Your task to perform on an android device: turn off data saver in the chrome app Image 0: 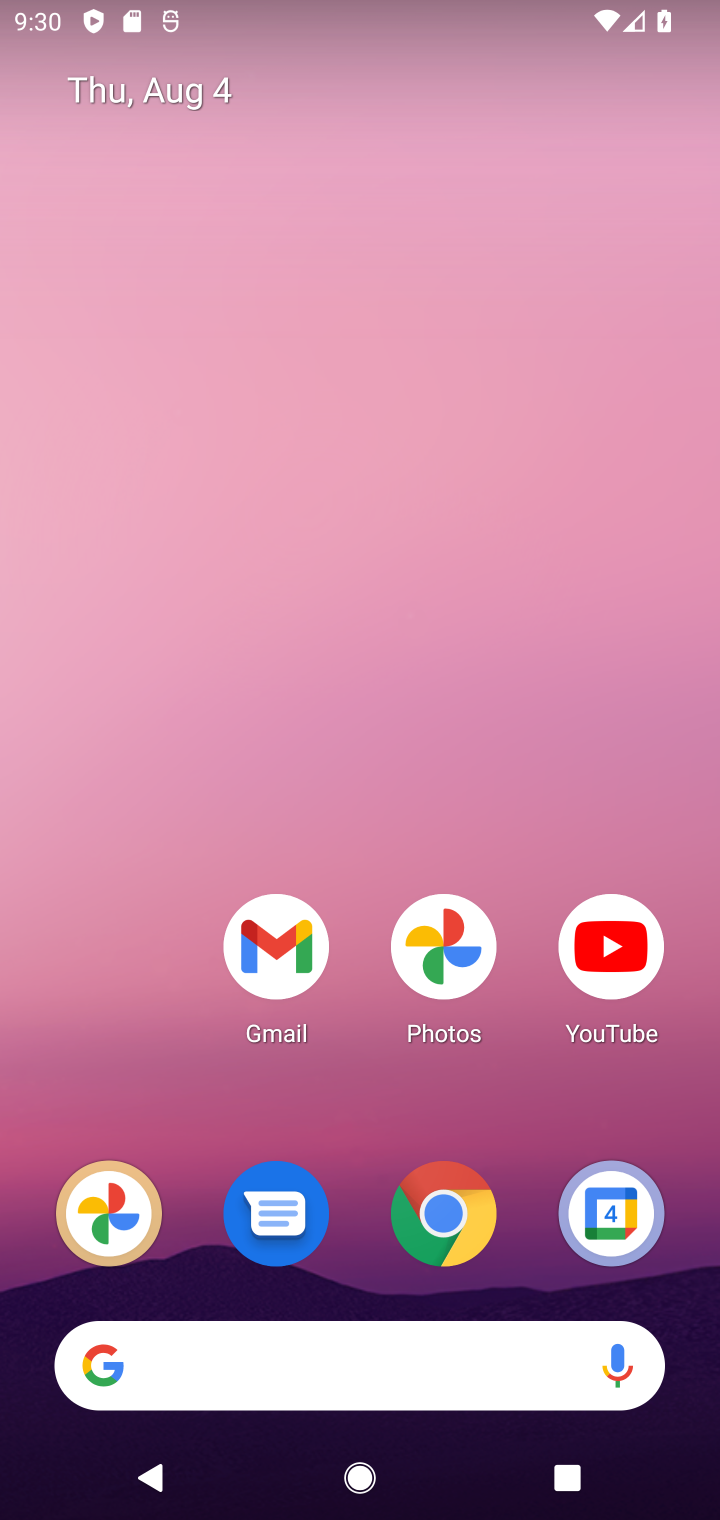
Step 0: press home button
Your task to perform on an android device: turn off data saver in the chrome app Image 1: 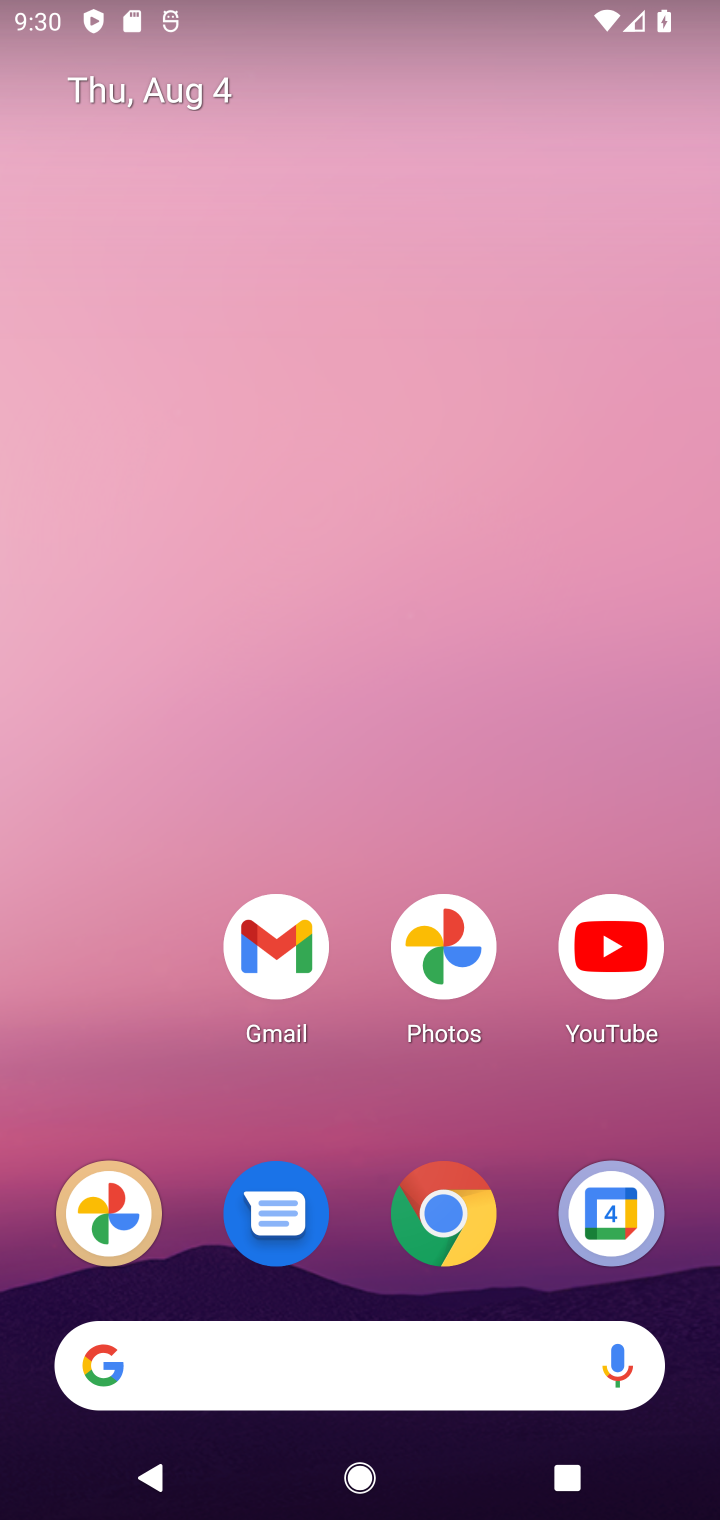
Step 1: drag from (372, 1129) to (360, 2)
Your task to perform on an android device: turn off data saver in the chrome app Image 2: 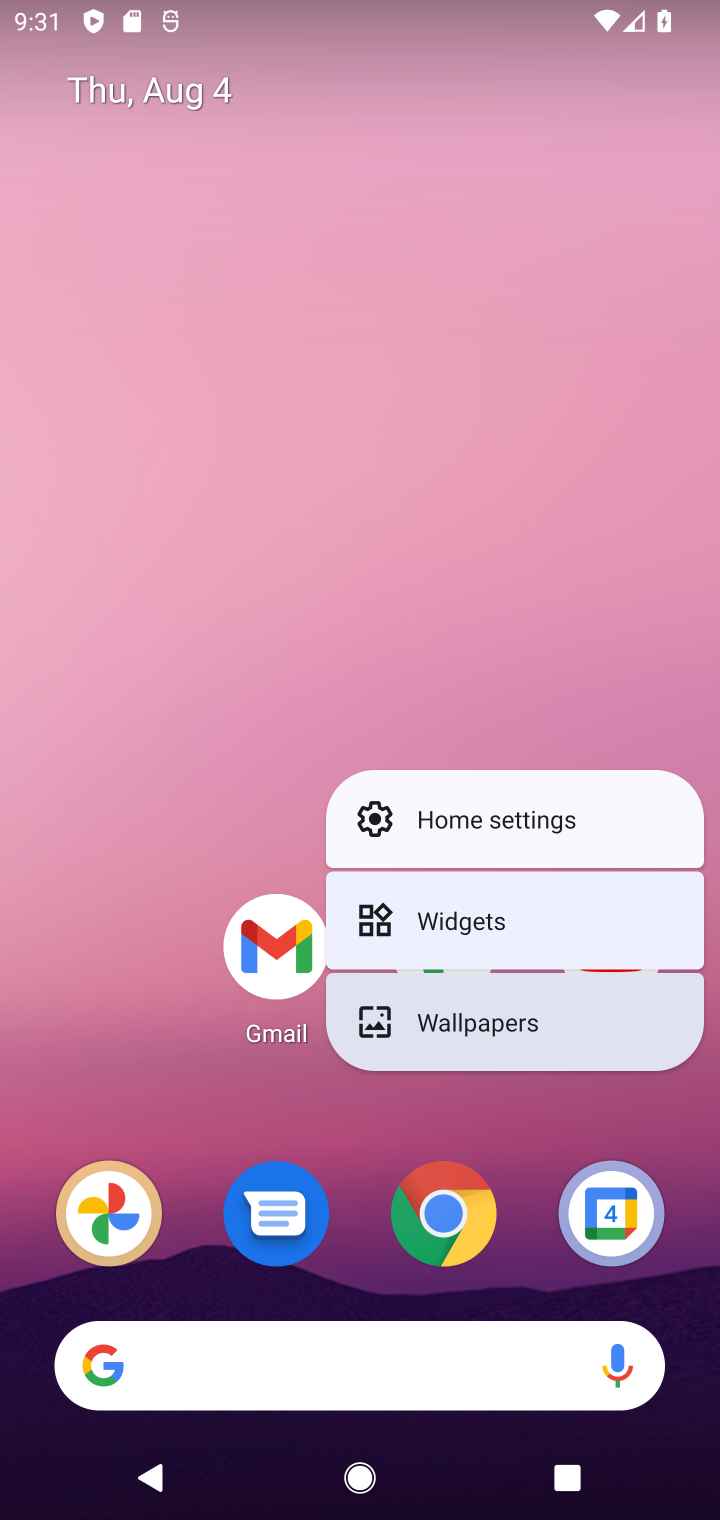
Step 2: click (150, 611)
Your task to perform on an android device: turn off data saver in the chrome app Image 3: 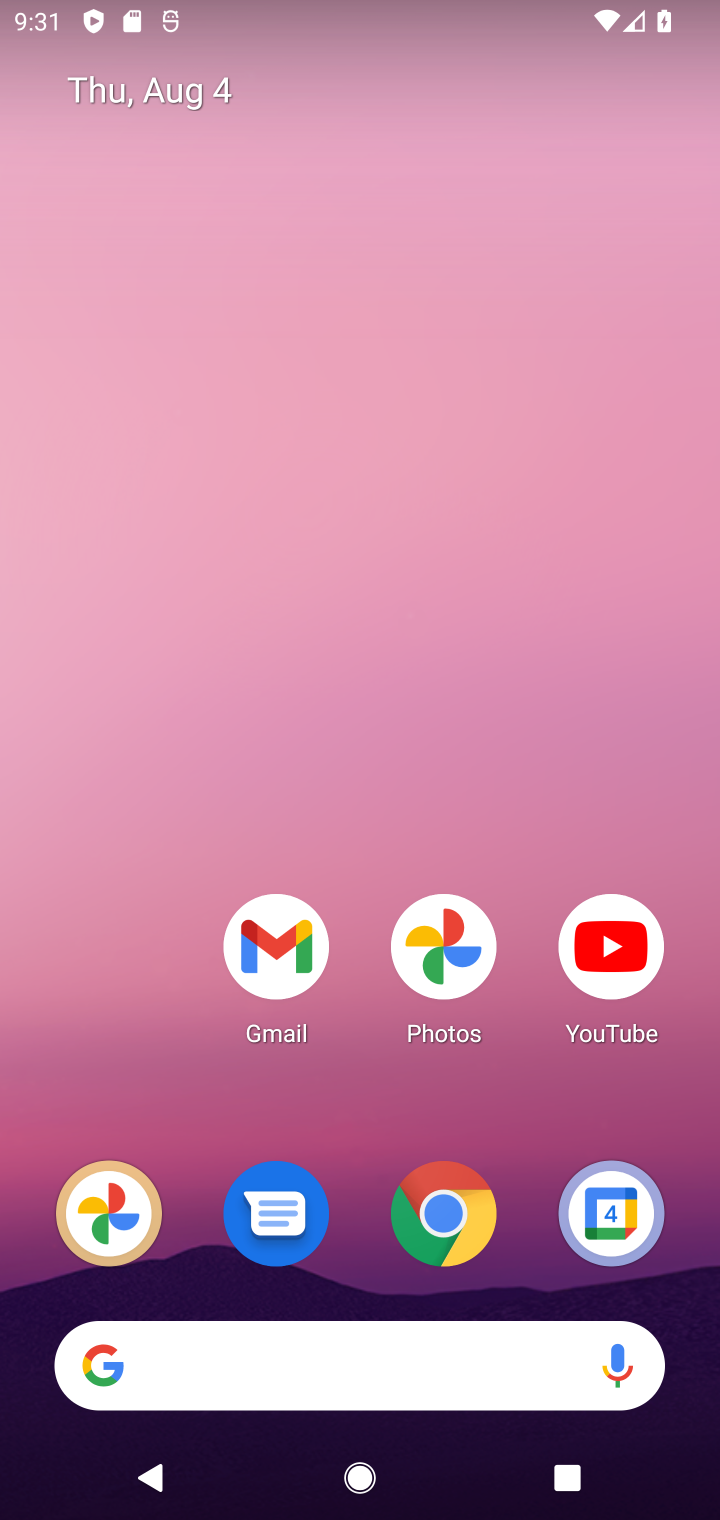
Step 3: drag from (351, 1092) to (386, 30)
Your task to perform on an android device: turn off data saver in the chrome app Image 4: 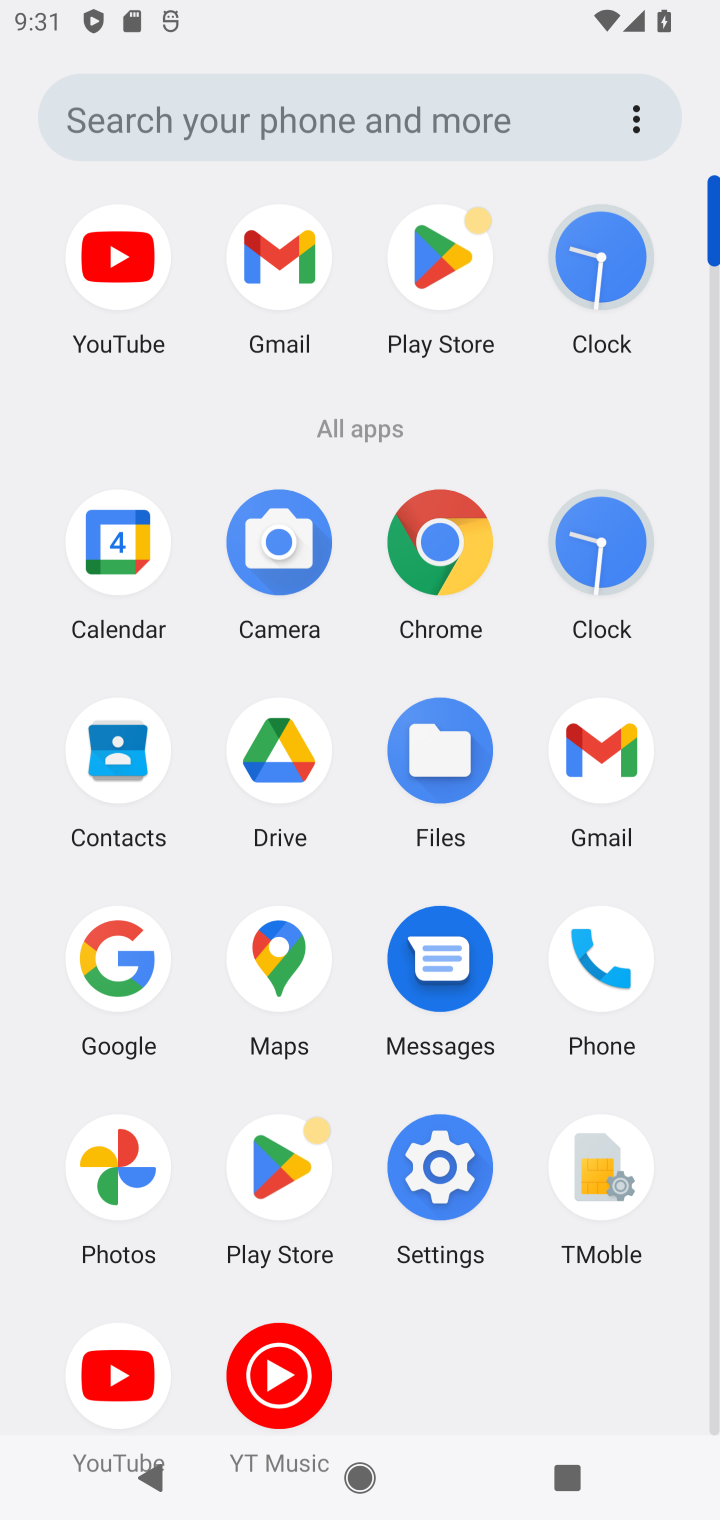
Step 4: click (438, 536)
Your task to perform on an android device: turn off data saver in the chrome app Image 5: 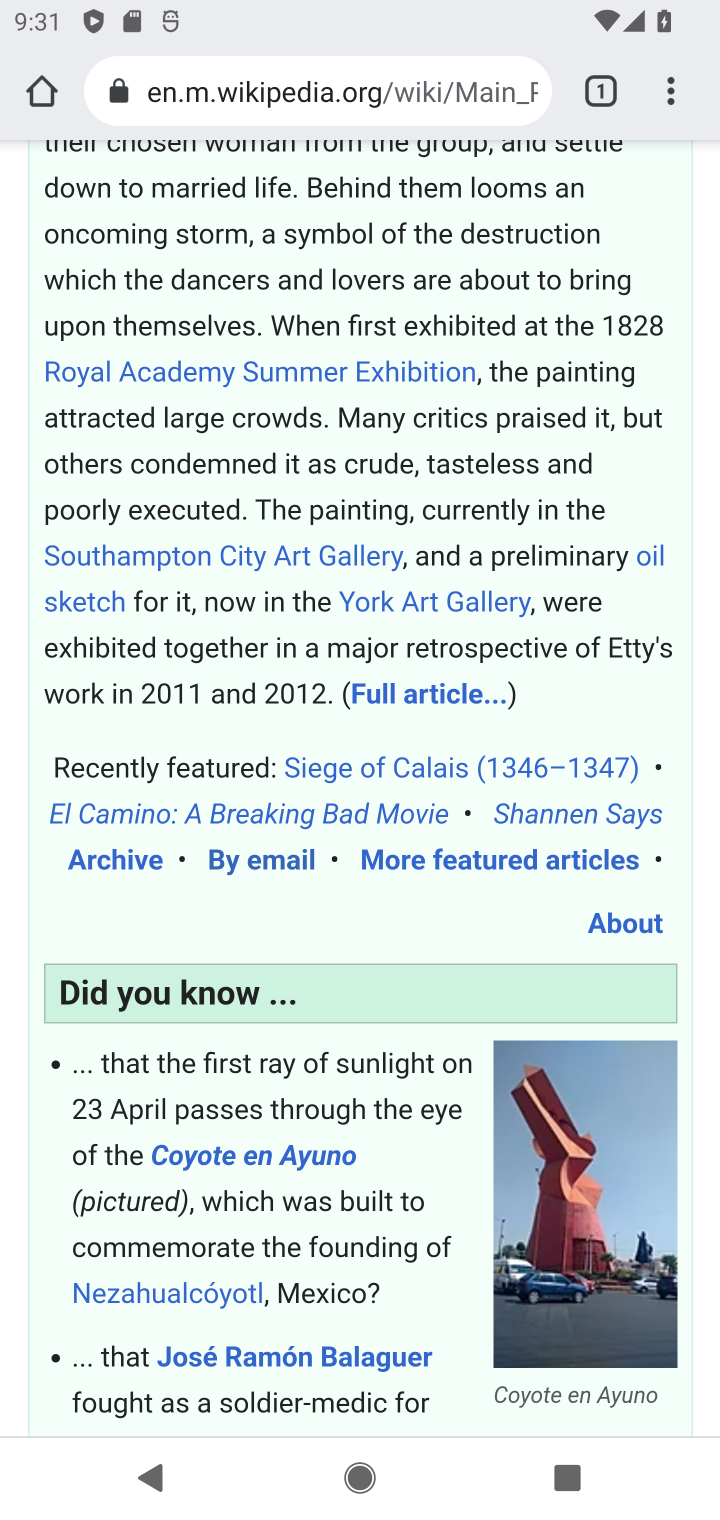
Step 5: click (674, 83)
Your task to perform on an android device: turn off data saver in the chrome app Image 6: 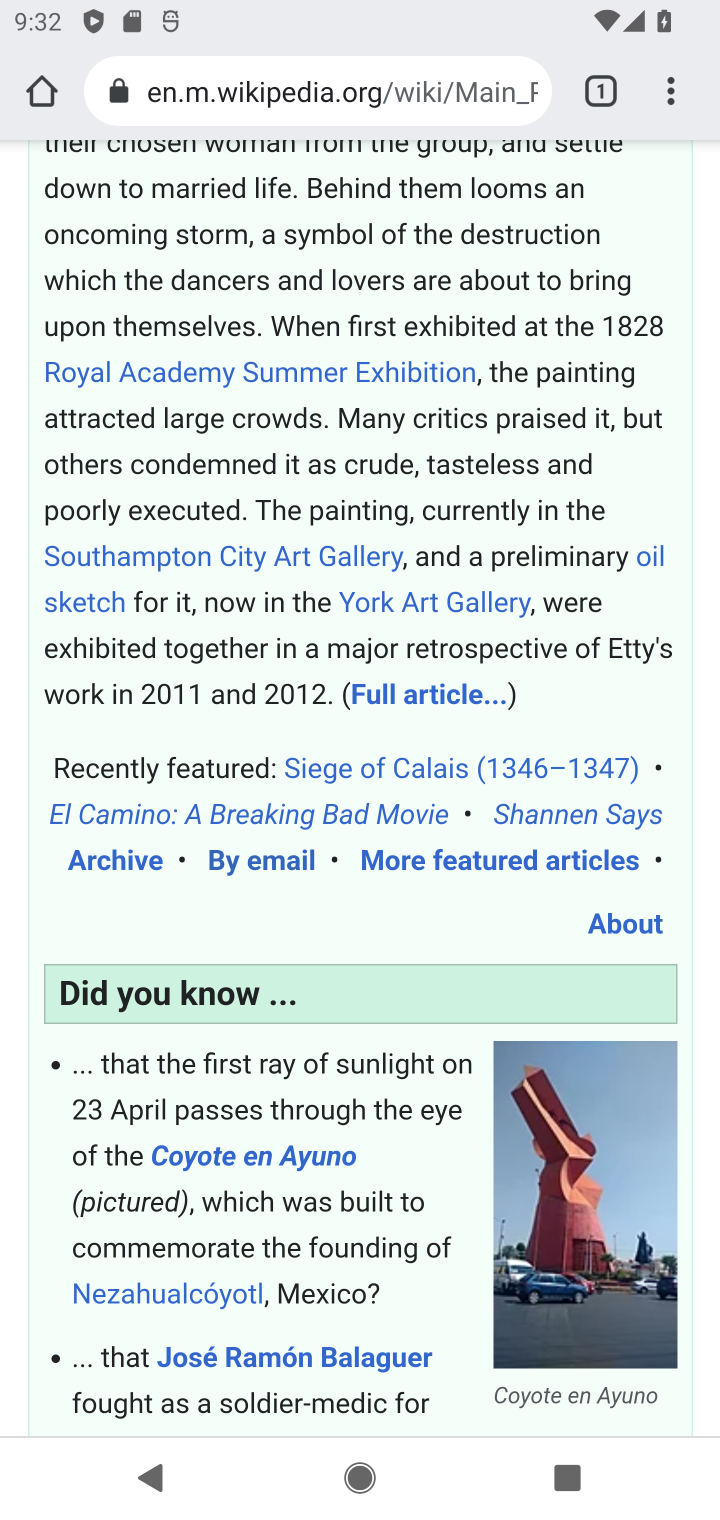
Step 6: click (669, 84)
Your task to perform on an android device: turn off data saver in the chrome app Image 7: 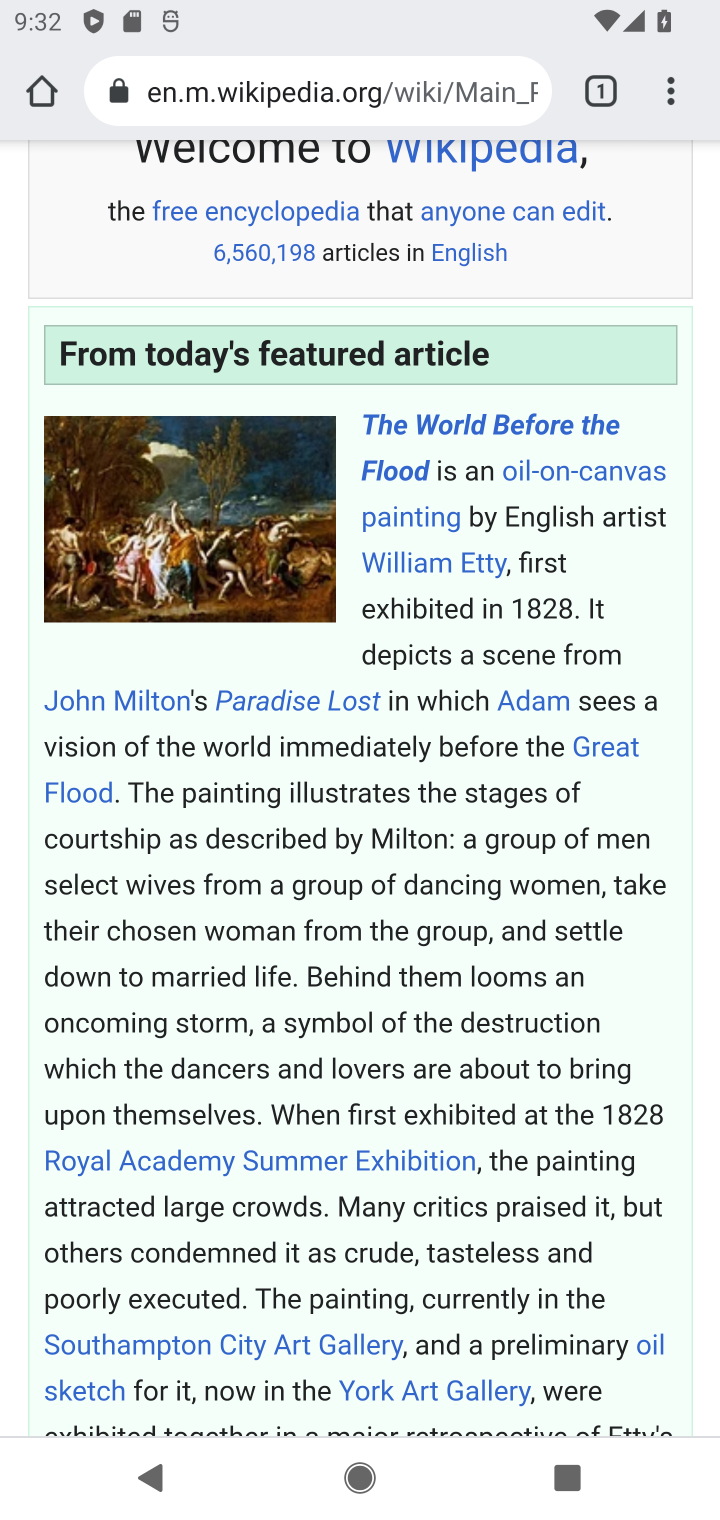
Step 7: click (674, 91)
Your task to perform on an android device: turn off data saver in the chrome app Image 8: 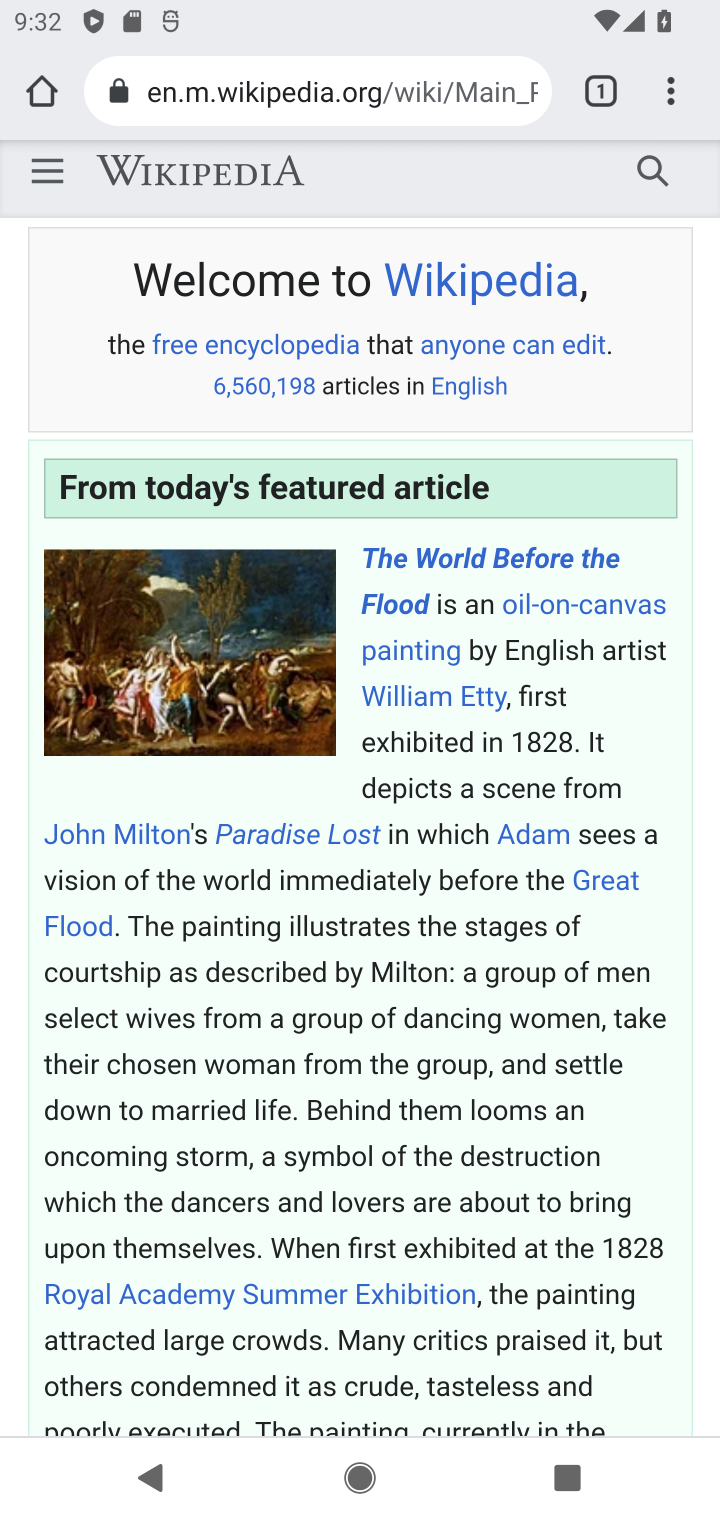
Step 8: click (670, 90)
Your task to perform on an android device: turn off data saver in the chrome app Image 9: 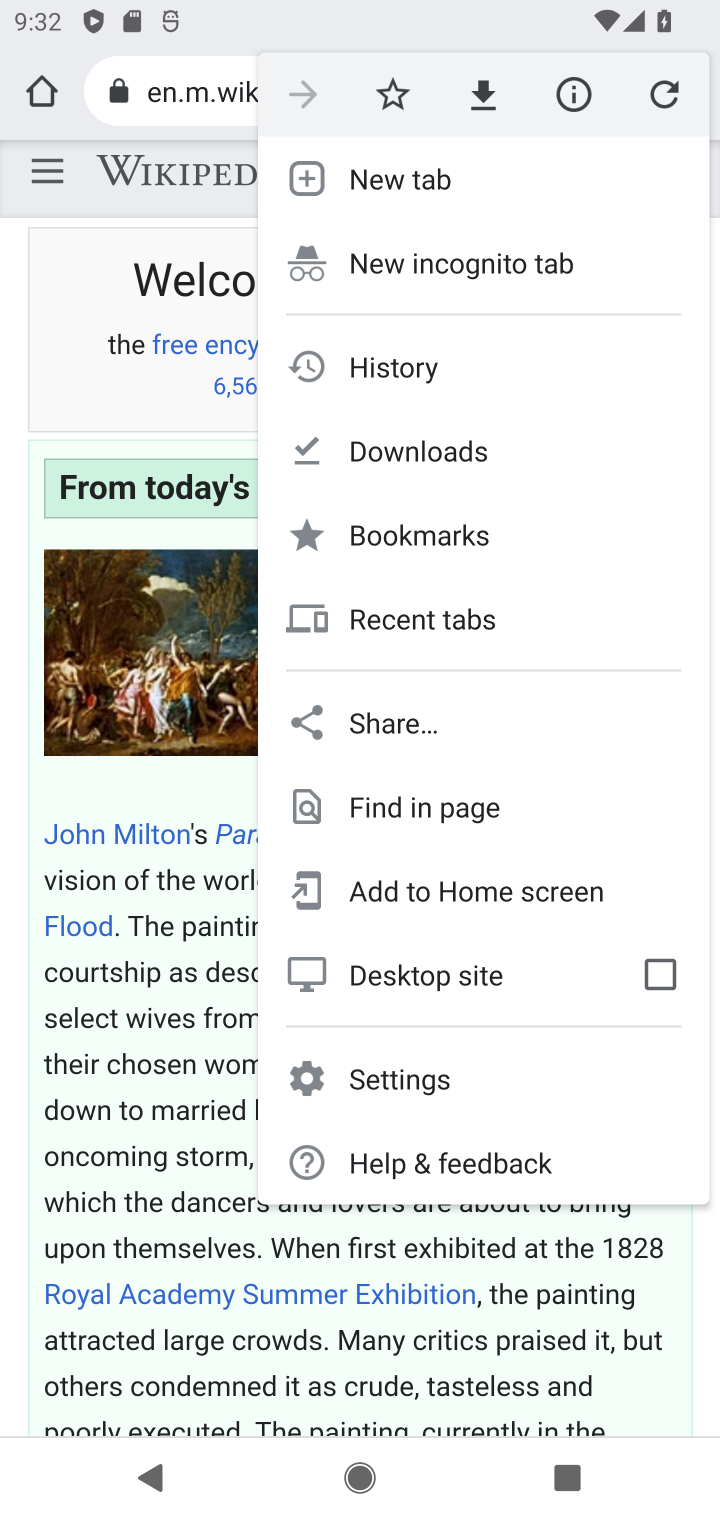
Step 9: click (384, 1069)
Your task to perform on an android device: turn off data saver in the chrome app Image 10: 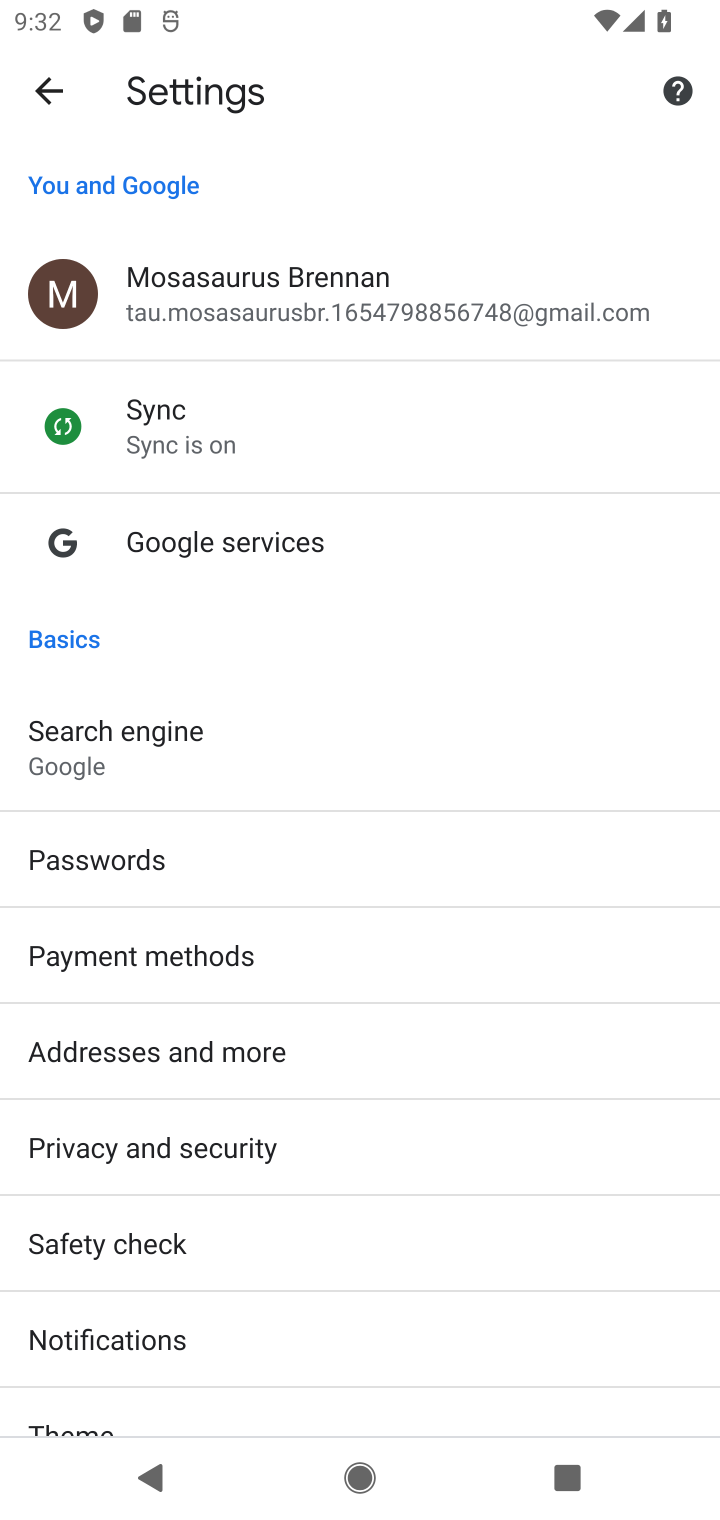
Step 10: drag from (291, 1325) to (242, 318)
Your task to perform on an android device: turn off data saver in the chrome app Image 11: 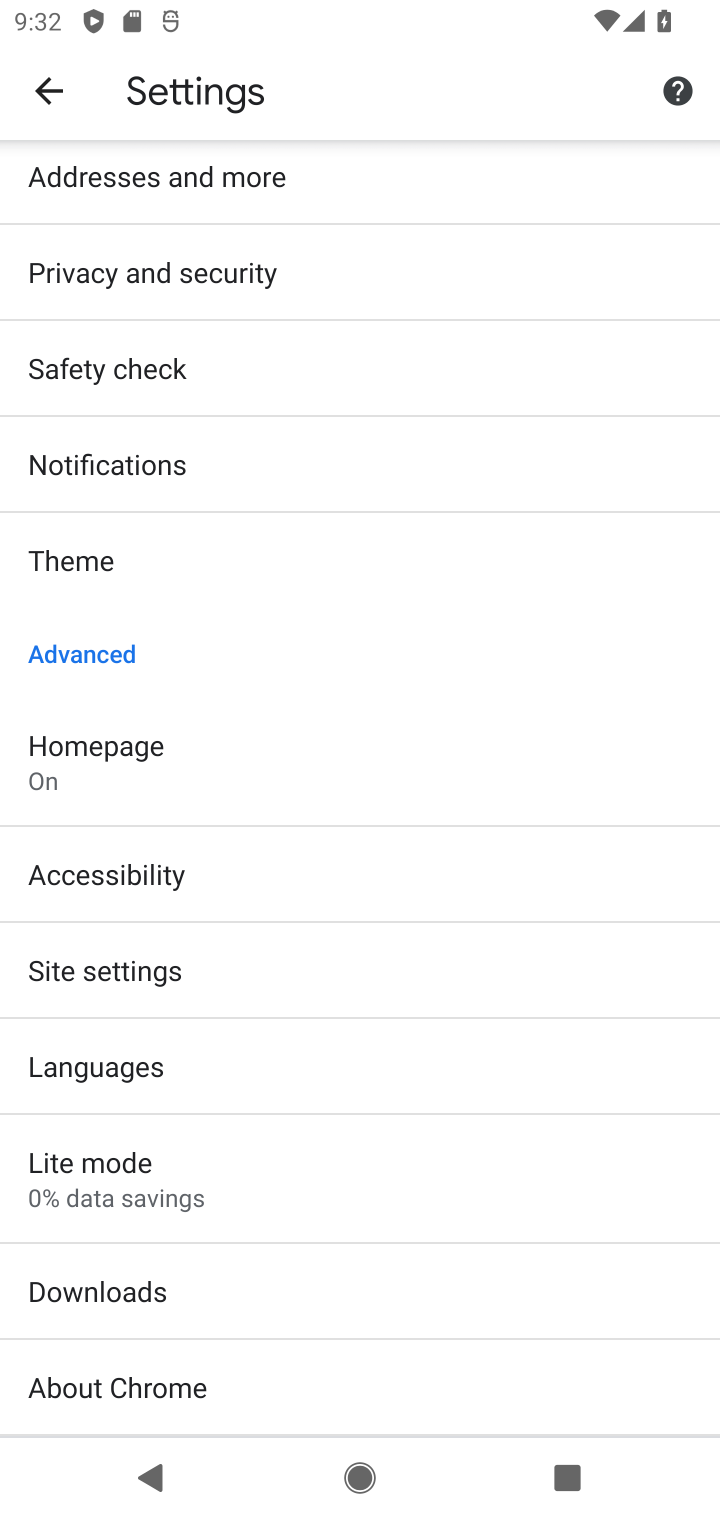
Step 11: click (201, 1170)
Your task to perform on an android device: turn off data saver in the chrome app Image 12: 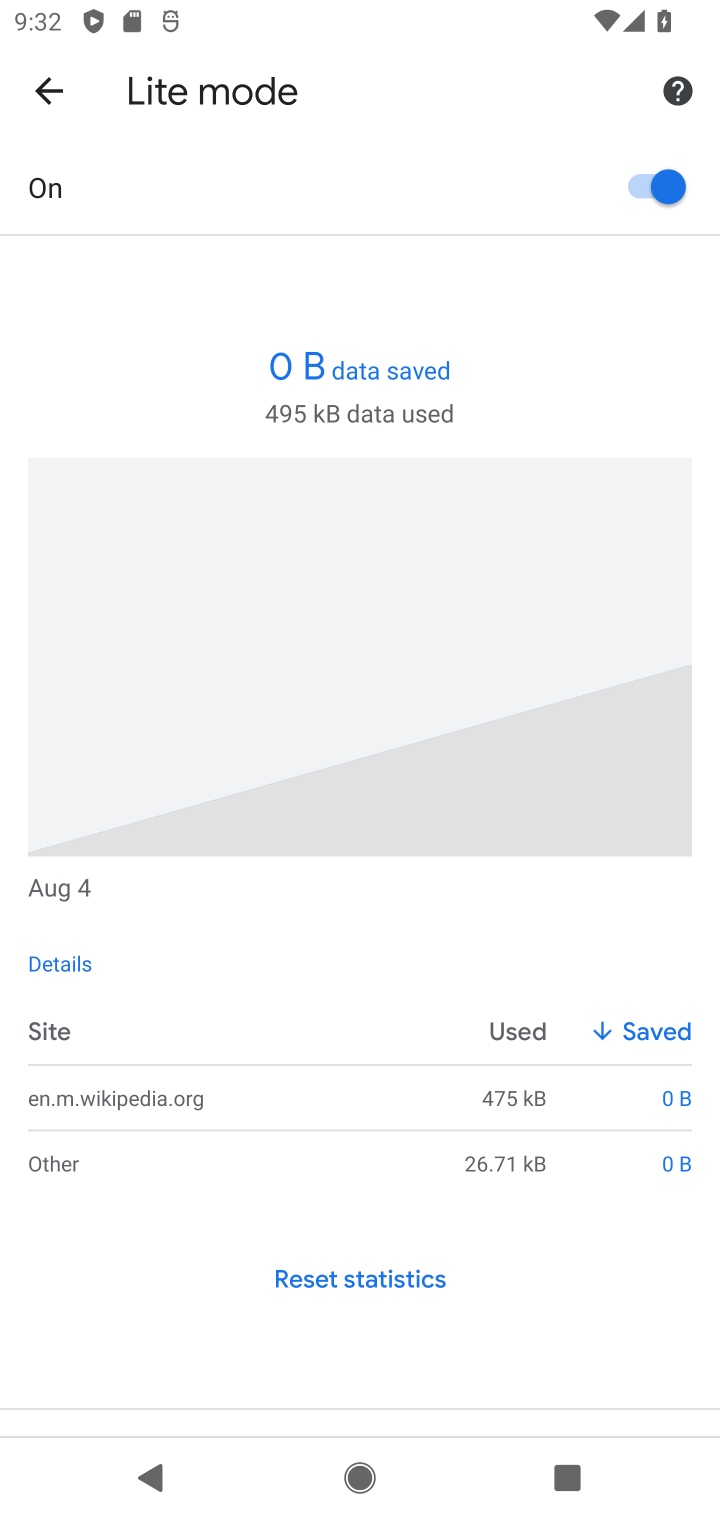
Step 12: click (652, 180)
Your task to perform on an android device: turn off data saver in the chrome app Image 13: 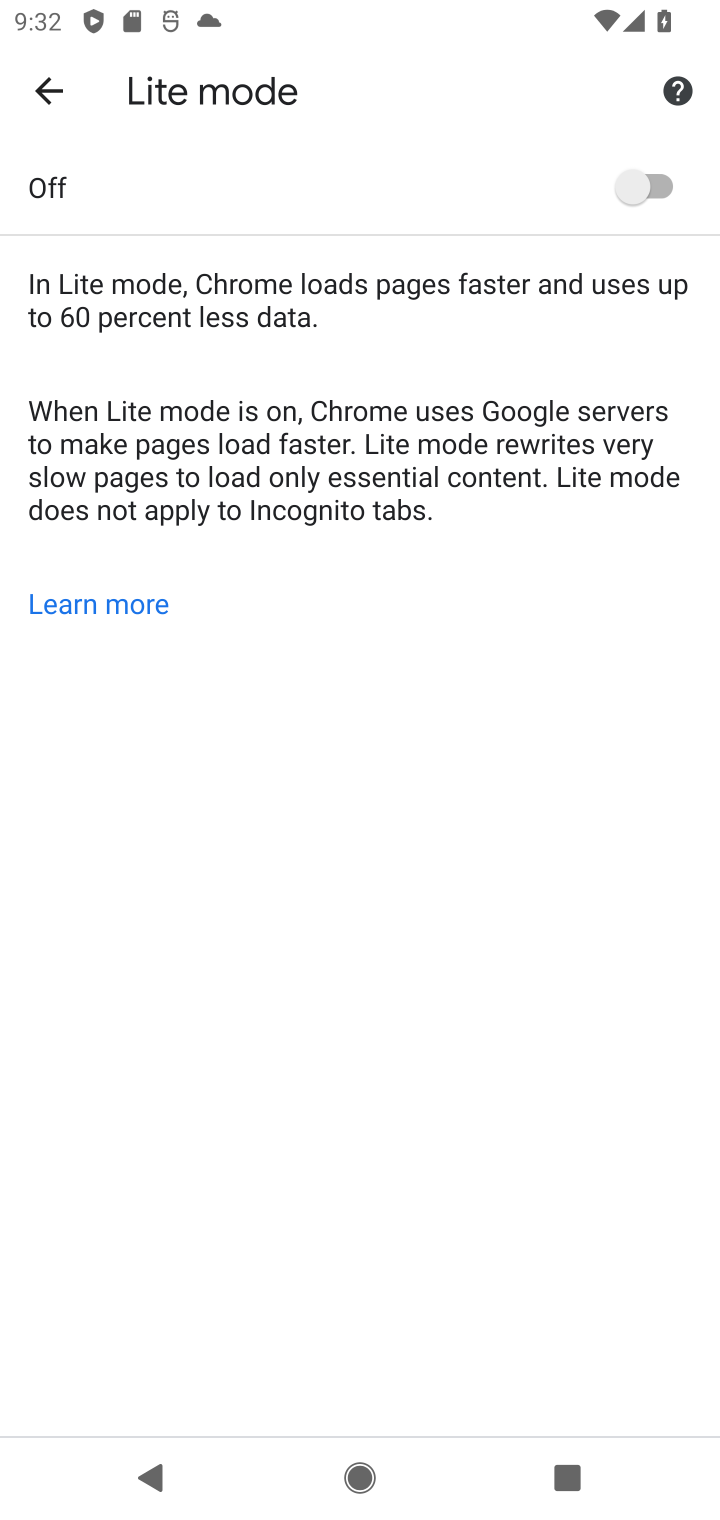
Step 13: task complete